Your task to perform on an android device: open device folders in google photos Image 0: 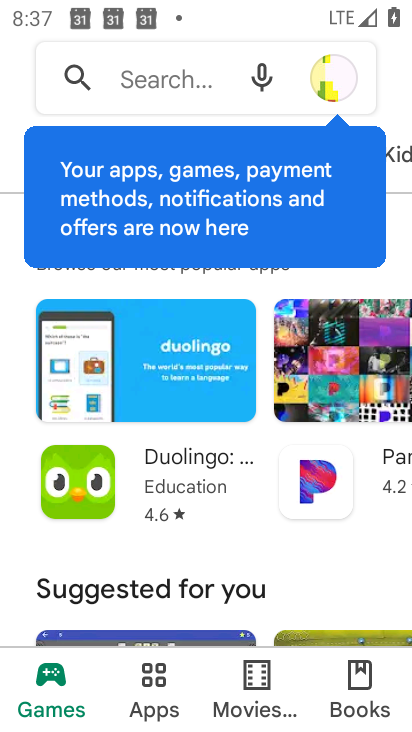
Step 0: press home button
Your task to perform on an android device: open device folders in google photos Image 1: 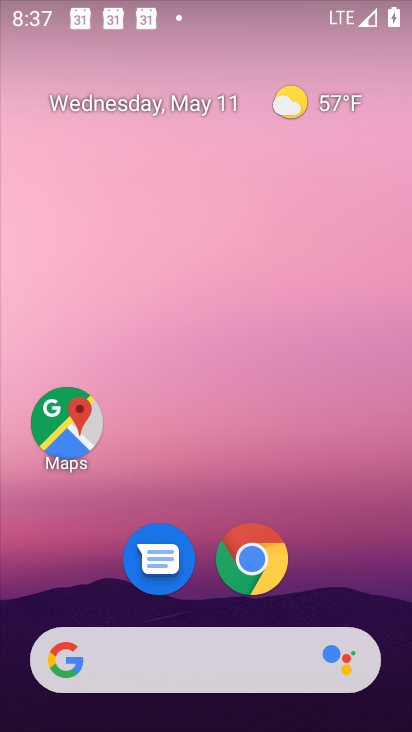
Step 1: drag from (322, 525) to (314, 3)
Your task to perform on an android device: open device folders in google photos Image 2: 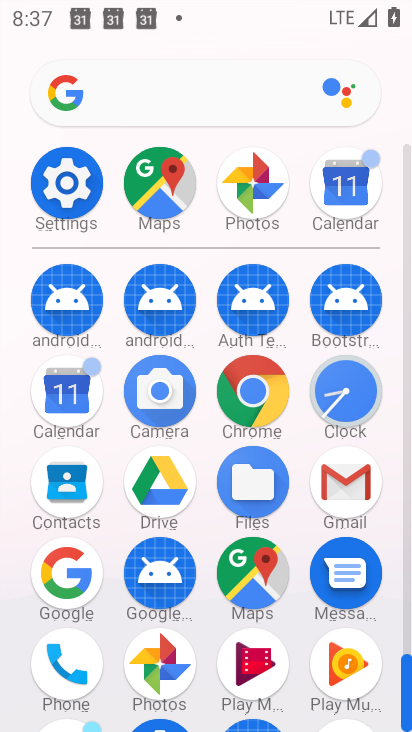
Step 2: click (267, 168)
Your task to perform on an android device: open device folders in google photos Image 3: 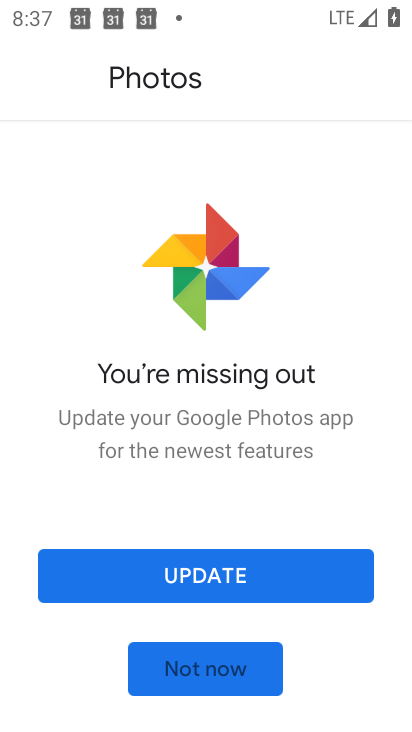
Step 3: click (248, 580)
Your task to perform on an android device: open device folders in google photos Image 4: 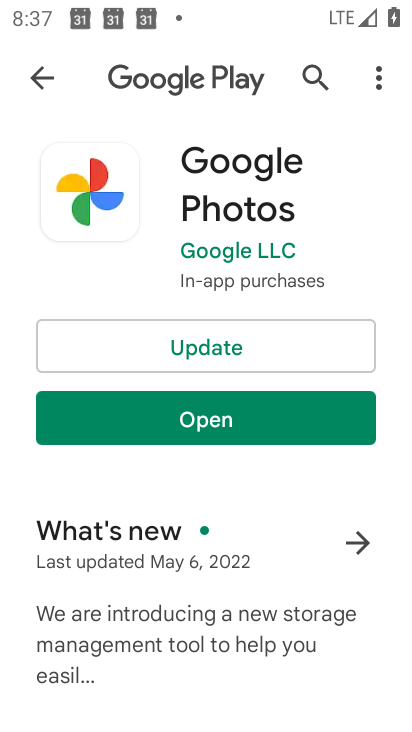
Step 4: click (134, 357)
Your task to perform on an android device: open device folders in google photos Image 5: 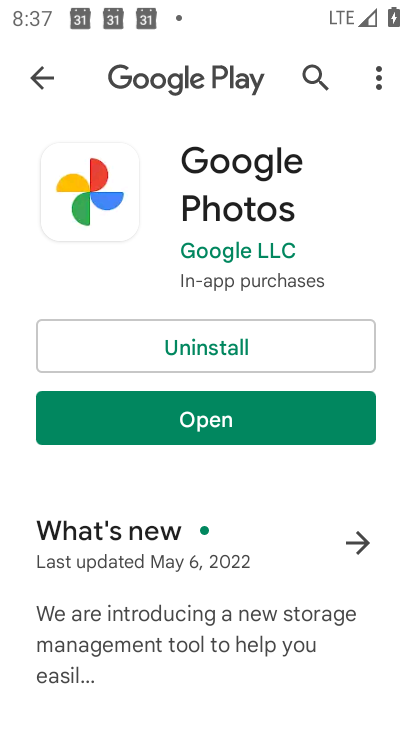
Step 5: click (137, 411)
Your task to perform on an android device: open device folders in google photos Image 6: 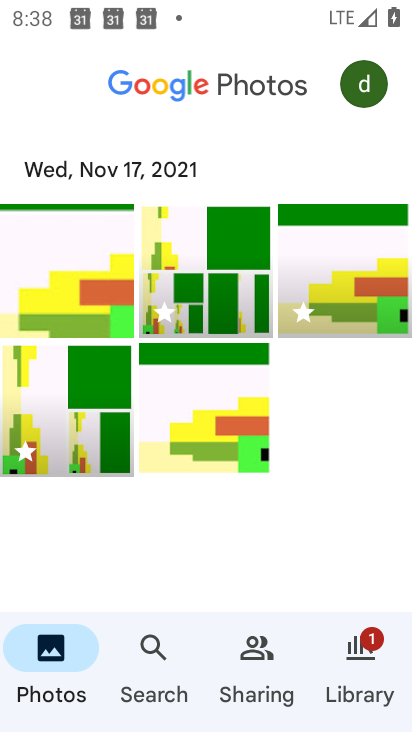
Step 6: click (344, 656)
Your task to perform on an android device: open device folders in google photos Image 7: 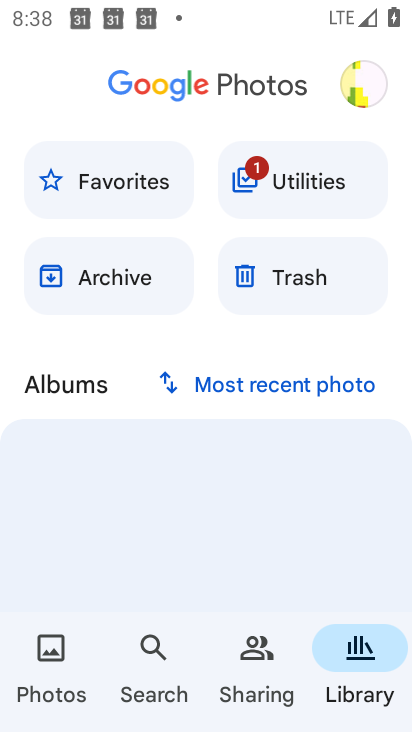
Step 7: task complete